Your task to perform on an android device: Go to Maps Image 0: 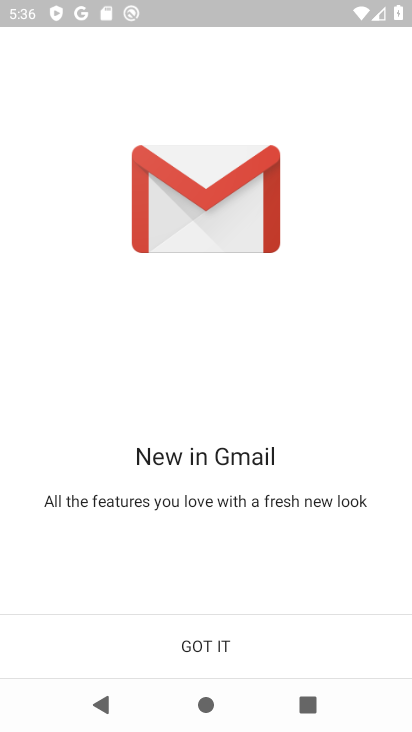
Step 0: press home button
Your task to perform on an android device: Go to Maps Image 1: 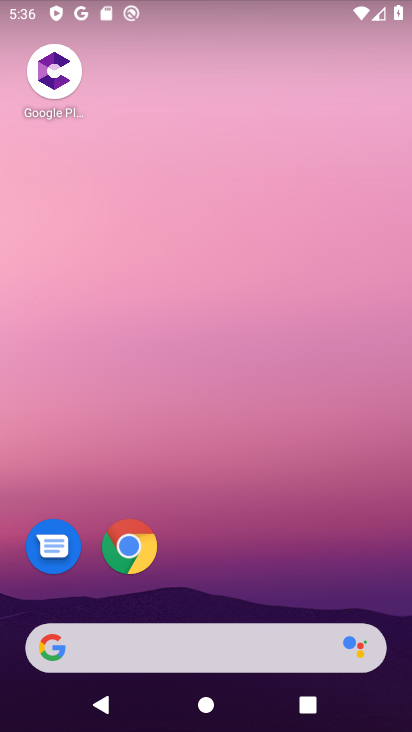
Step 1: drag from (217, 551) to (226, 122)
Your task to perform on an android device: Go to Maps Image 2: 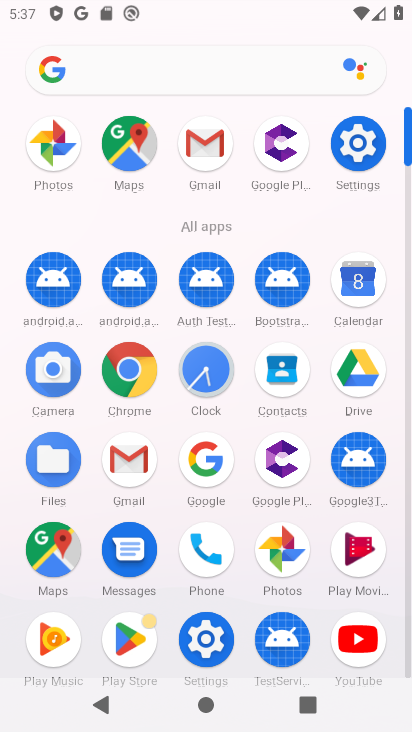
Step 2: click (134, 167)
Your task to perform on an android device: Go to Maps Image 3: 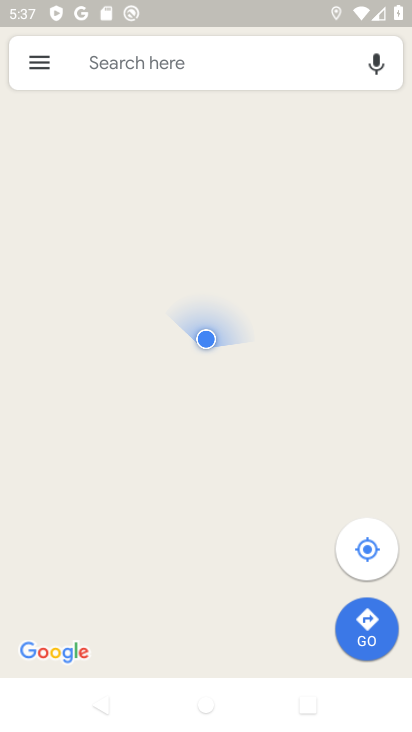
Step 3: task complete